Your task to perform on an android device: turn on translation in the chrome app Image 0: 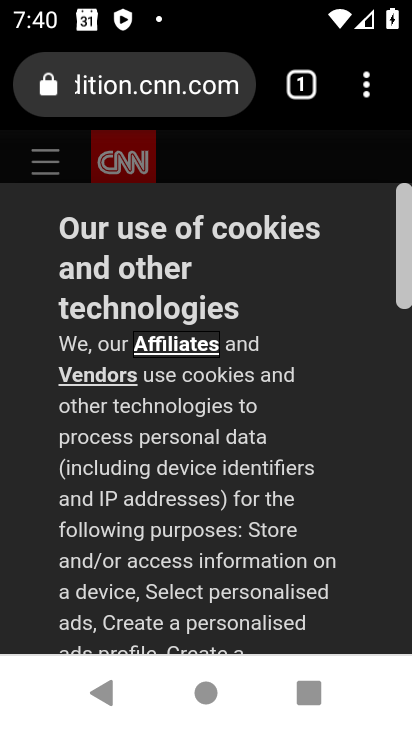
Step 0: press home button
Your task to perform on an android device: turn on translation in the chrome app Image 1: 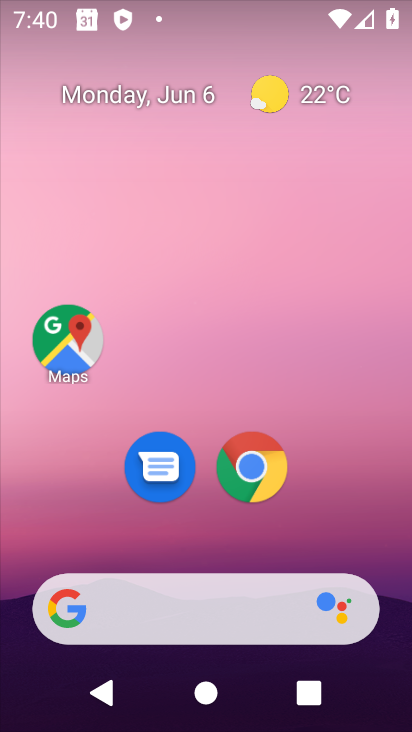
Step 1: drag from (362, 524) to (361, 138)
Your task to perform on an android device: turn on translation in the chrome app Image 2: 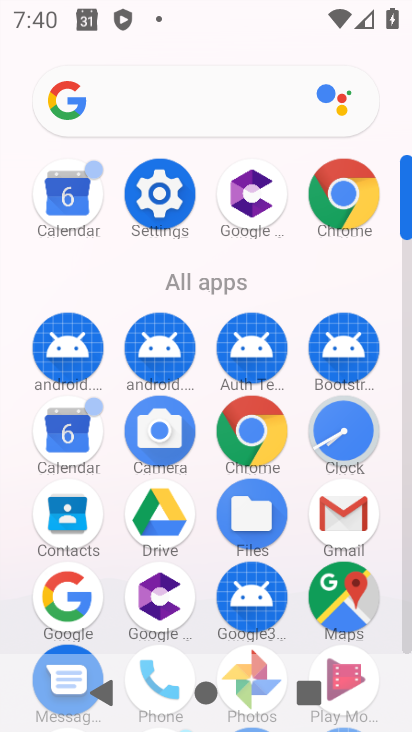
Step 2: click (248, 430)
Your task to perform on an android device: turn on translation in the chrome app Image 3: 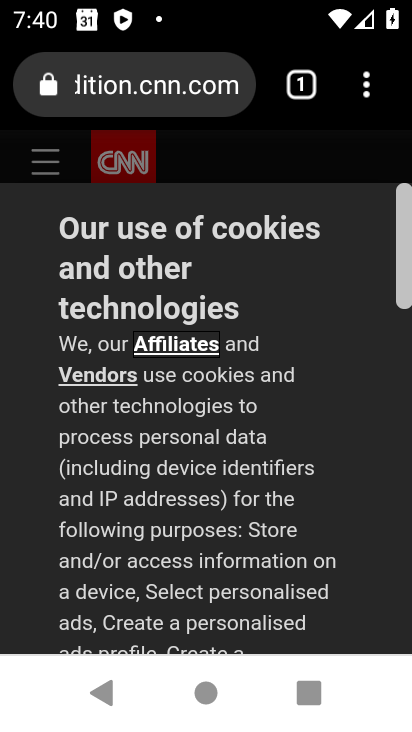
Step 3: click (366, 101)
Your task to perform on an android device: turn on translation in the chrome app Image 4: 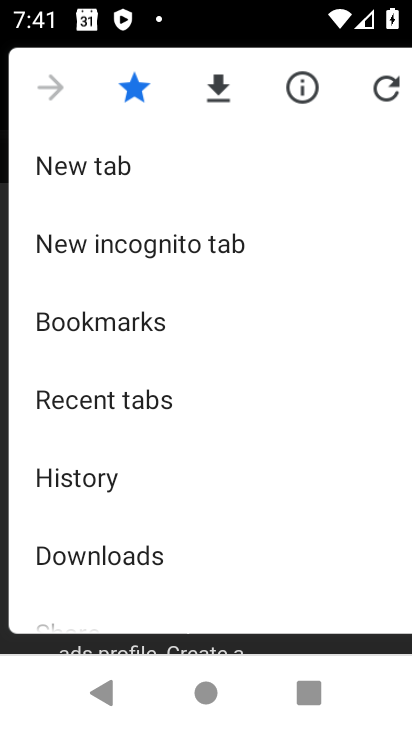
Step 4: drag from (336, 371) to (317, 275)
Your task to perform on an android device: turn on translation in the chrome app Image 5: 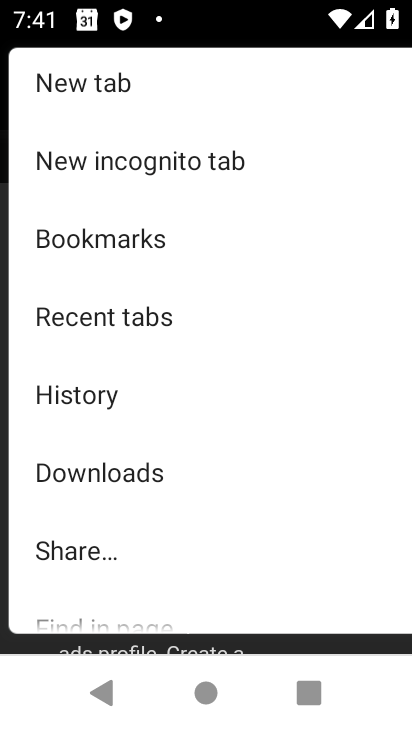
Step 5: drag from (307, 424) to (348, 251)
Your task to perform on an android device: turn on translation in the chrome app Image 6: 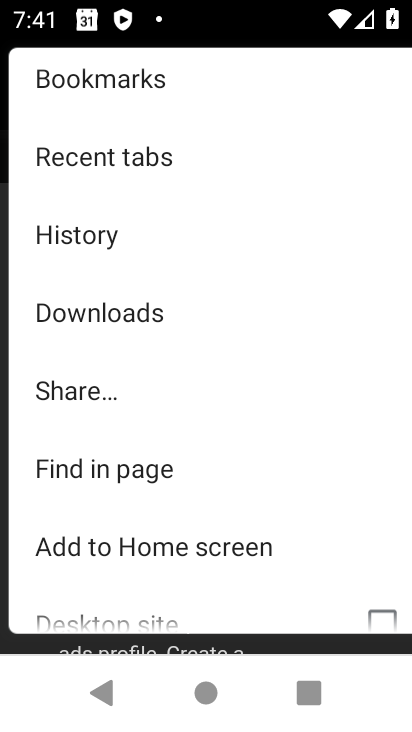
Step 6: drag from (346, 478) to (359, 219)
Your task to perform on an android device: turn on translation in the chrome app Image 7: 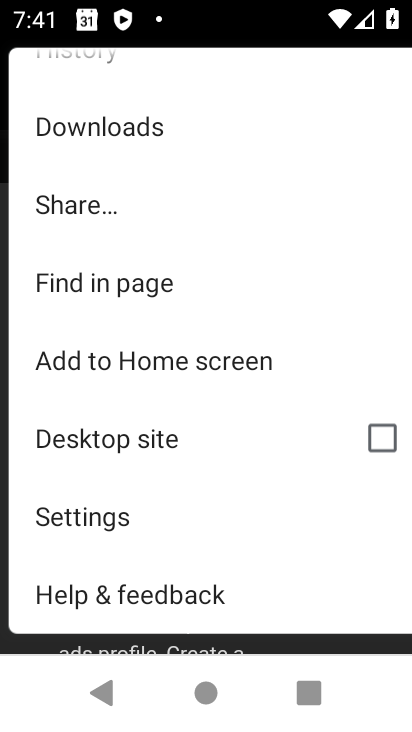
Step 7: click (148, 527)
Your task to perform on an android device: turn on translation in the chrome app Image 8: 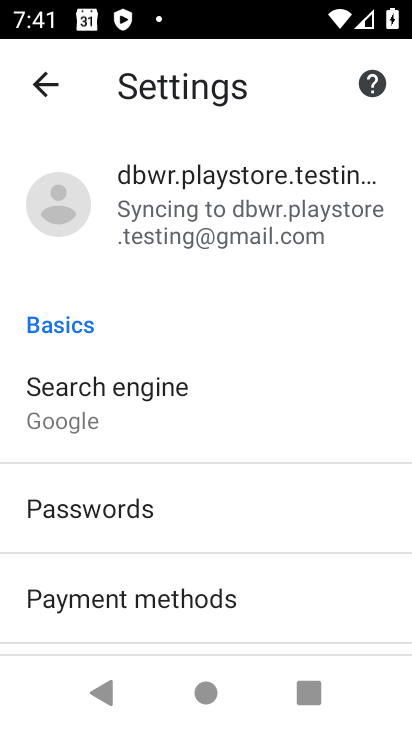
Step 8: drag from (314, 522) to (338, 362)
Your task to perform on an android device: turn on translation in the chrome app Image 9: 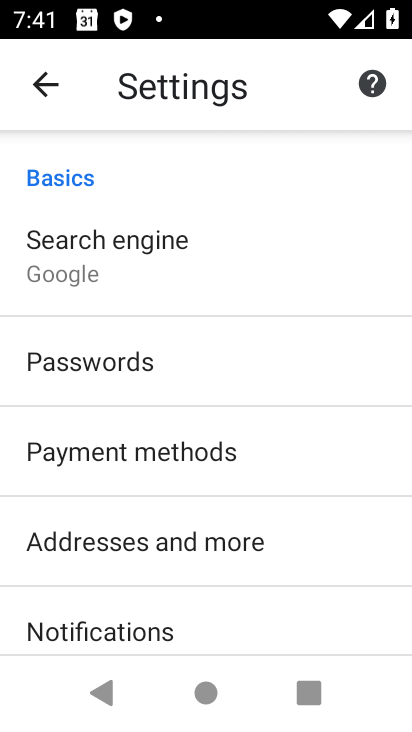
Step 9: drag from (356, 507) to (358, 371)
Your task to perform on an android device: turn on translation in the chrome app Image 10: 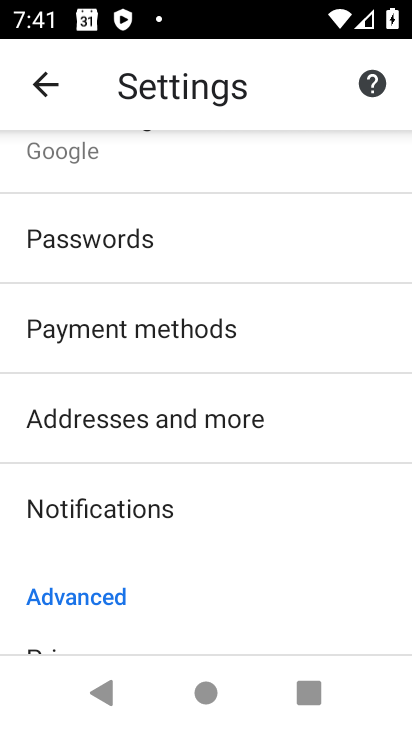
Step 10: drag from (337, 543) to (341, 373)
Your task to perform on an android device: turn on translation in the chrome app Image 11: 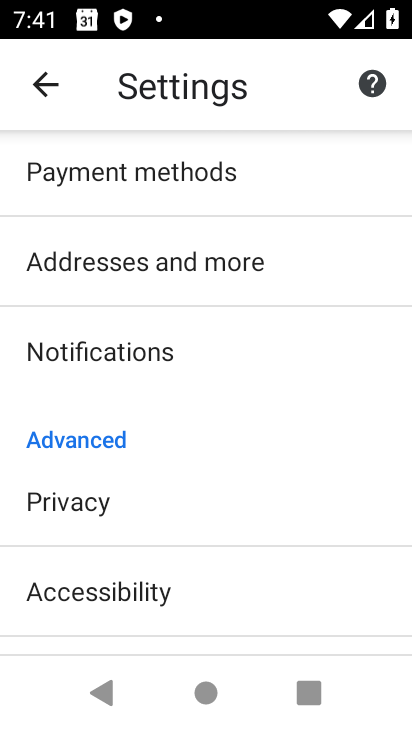
Step 11: drag from (327, 448) to (347, 293)
Your task to perform on an android device: turn on translation in the chrome app Image 12: 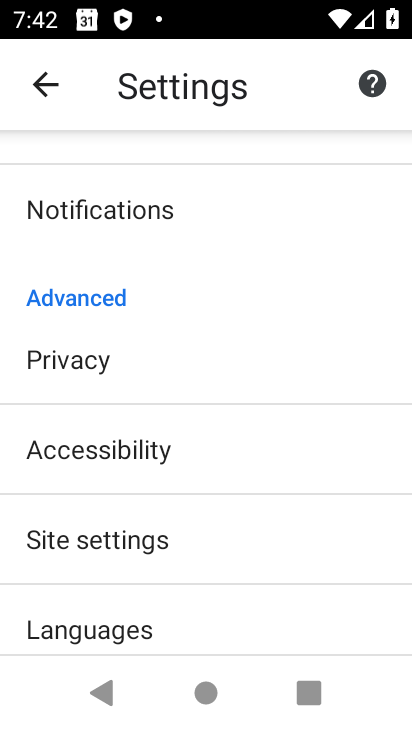
Step 12: drag from (311, 523) to (319, 325)
Your task to perform on an android device: turn on translation in the chrome app Image 13: 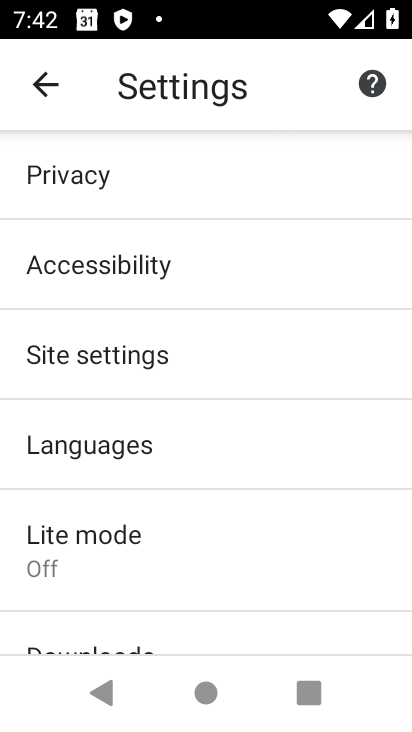
Step 13: click (276, 446)
Your task to perform on an android device: turn on translation in the chrome app Image 14: 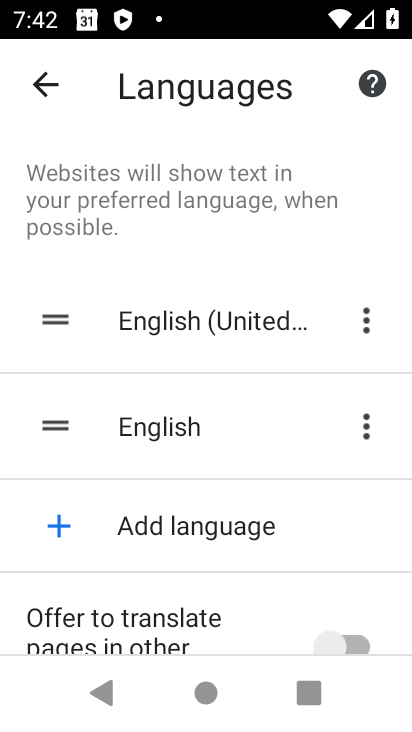
Step 14: drag from (304, 568) to (325, 258)
Your task to perform on an android device: turn on translation in the chrome app Image 15: 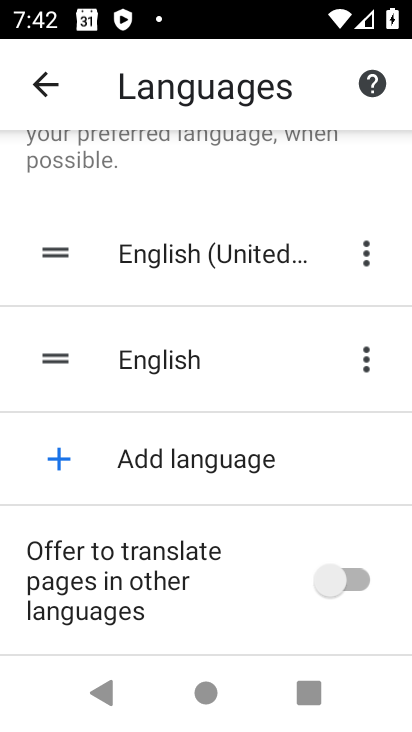
Step 15: click (318, 584)
Your task to perform on an android device: turn on translation in the chrome app Image 16: 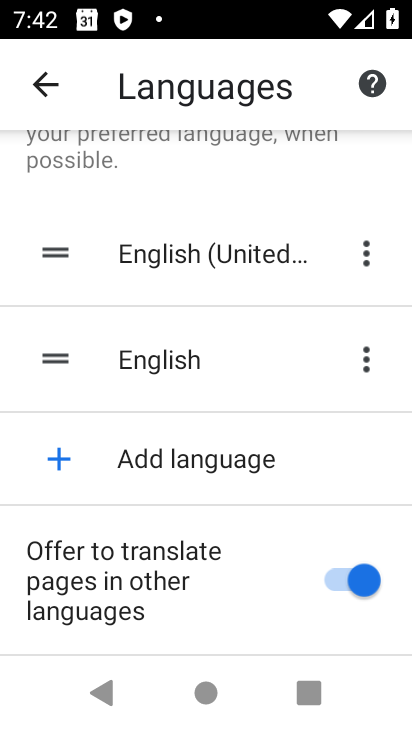
Step 16: task complete